Your task to perform on an android device: change timer sound Image 0: 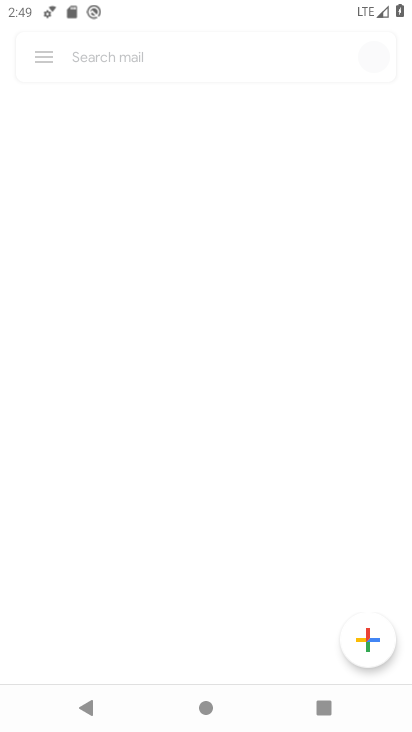
Step 0: click (308, 656)
Your task to perform on an android device: change timer sound Image 1: 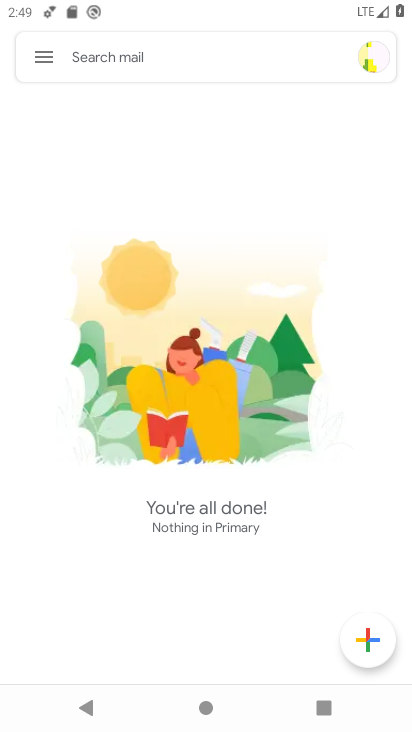
Step 1: press home button
Your task to perform on an android device: change timer sound Image 2: 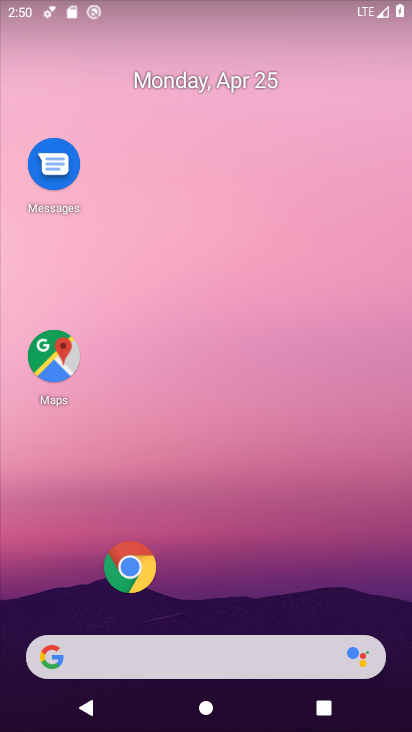
Step 2: drag from (235, 604) to (286, 80)
Your task to perform on an android device: change timer sound Image 3: 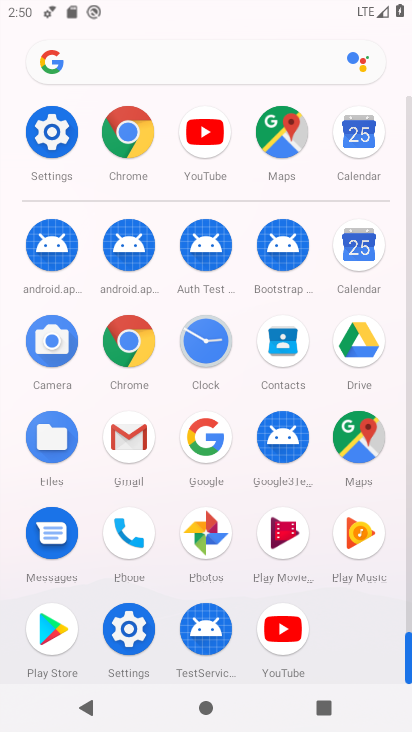
Step 3: click (200, 354)
Your task to perform on an android device: change timer sound Image 4: 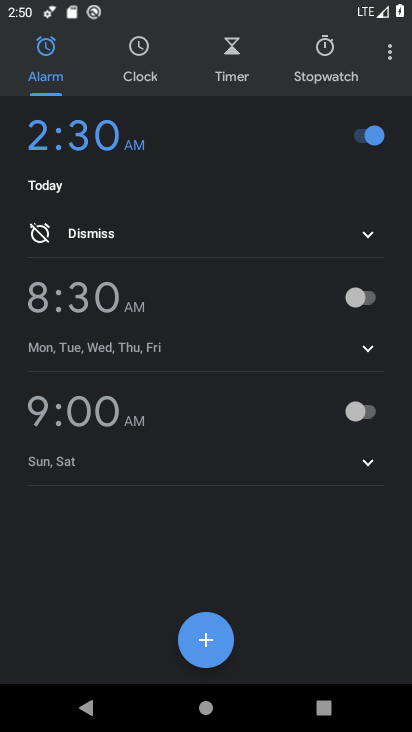
Step 4: click (239, 80)
Your task to perform on an android device: change timer sound Image 5: 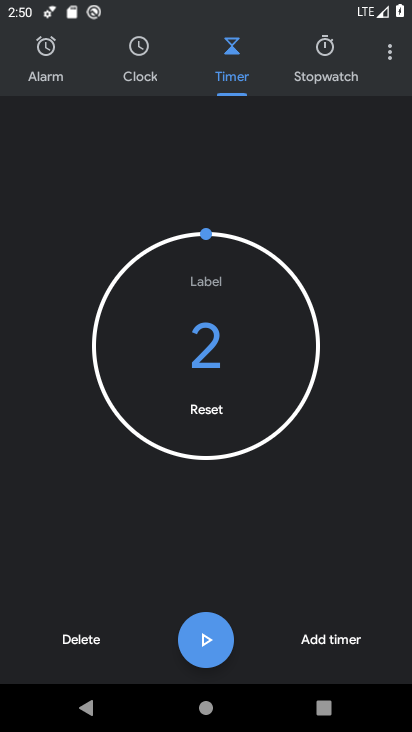
Step 5: click (388, 63)
Your task to perform on an android device: change timer sound Image 6: 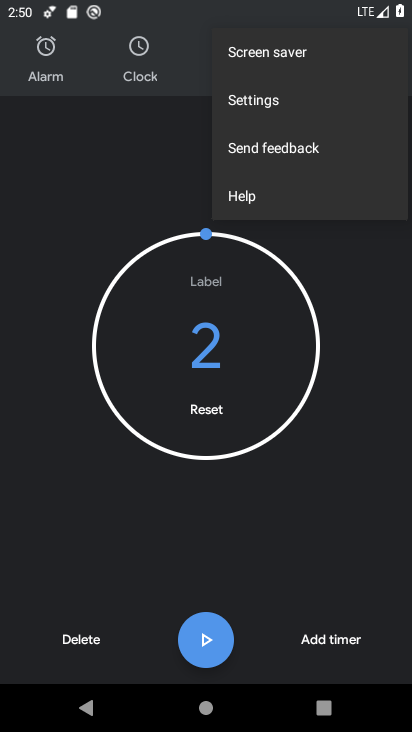
Step 6: click (287, 107)
Your task to perform on an android device: change timer sound Image 7: 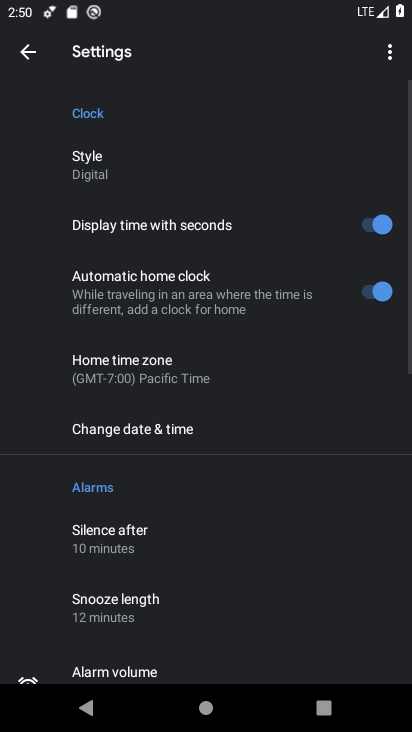
Step 7: drag from (208, 544) to (226, 297)
Your task to perform on an android device: change timer sound Image 8: 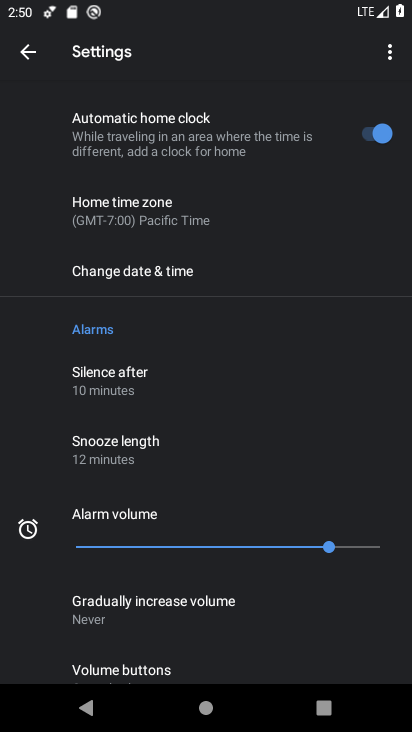
Step 8: drag from (217, 454) to (219, 304)
Your task to perform on an android device: change timer sound Image 9: 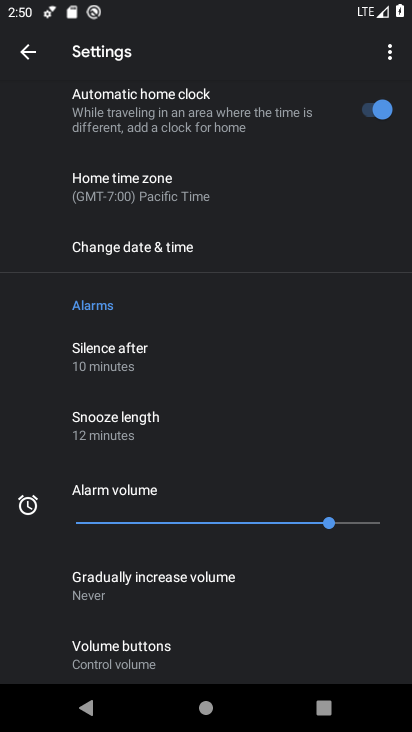
Step 9: drag from (206, 504) to (242, 249)
Your task to perform on an android device: change timer sound Image 10: 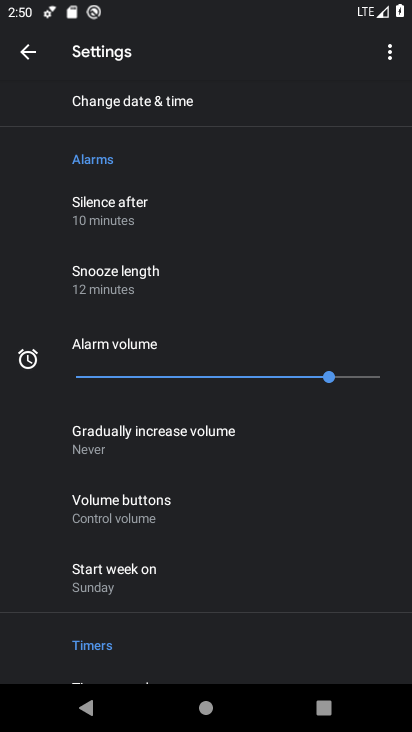
Step 10: drag from (202, 651) to (217, 421)
Your task to perform on an android device: change timer sound Image 11: 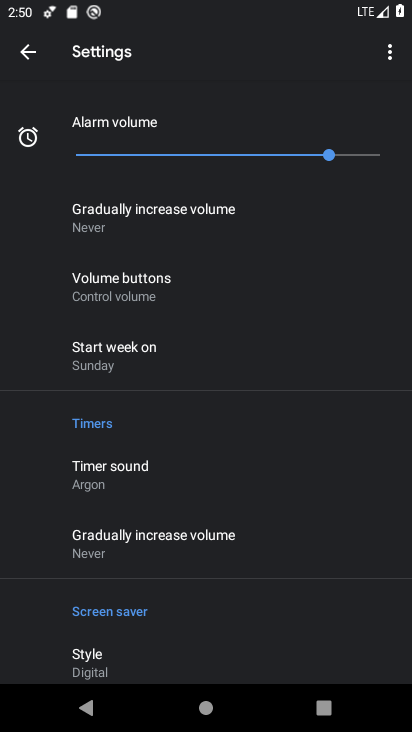
Step 11: click (200, 488)
Your task to perform on an android device: change timer sound Image 12: 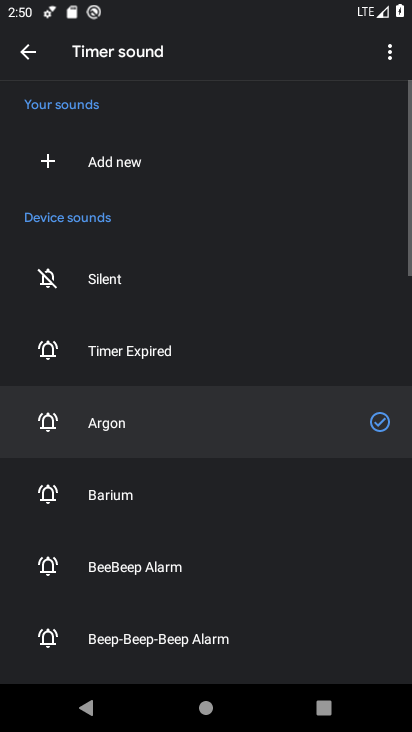
Step 12: click (200, 488)
Your task to perform on an android device: change timer sound Image 13: 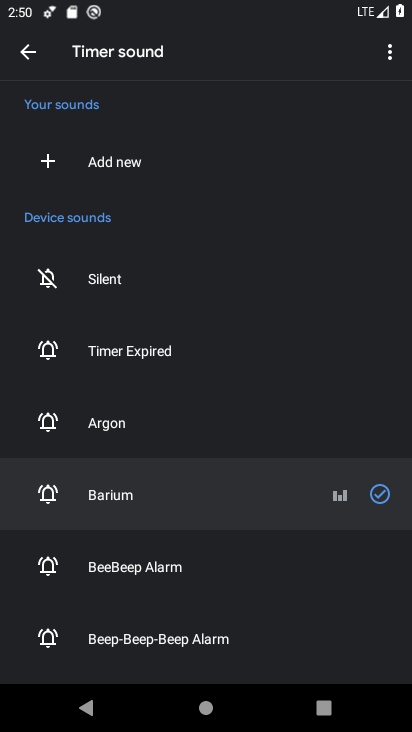
Step 13: task complete